Your task to perform on an android device: Open the calendar app, open the side menu, and click the "Day" option Image 0: 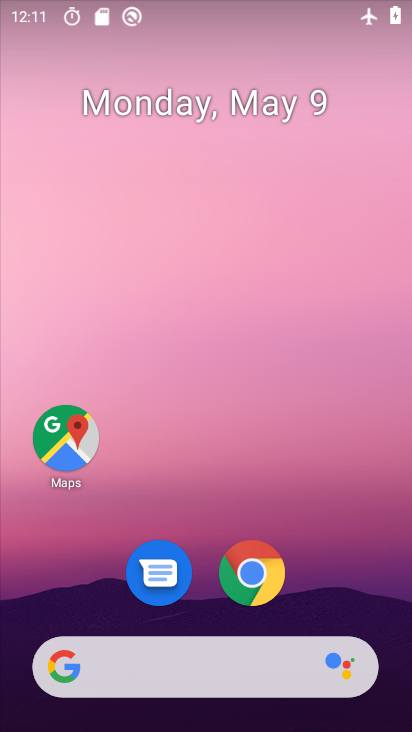
Step 0: drag from (266, 631) to (309, 233)
Your task to perform on an android device: Open the calendar app, open the side menu, and click the "Day" option Image 1: 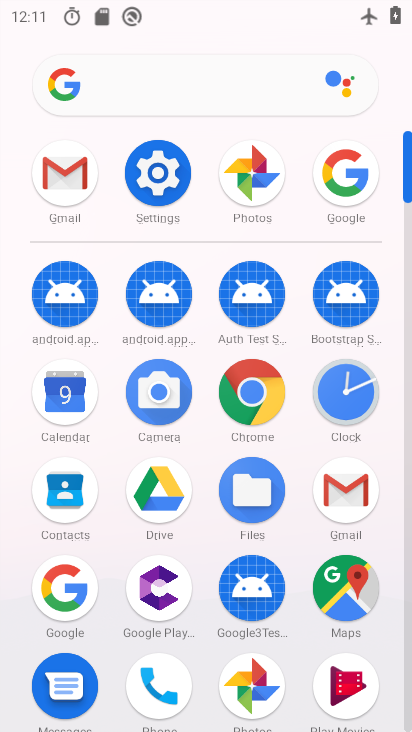
Step 1: click (37, 384)
Your task to perform on an android device: Open the calendar app, open the side menu, and click the "Day" option Image 2: 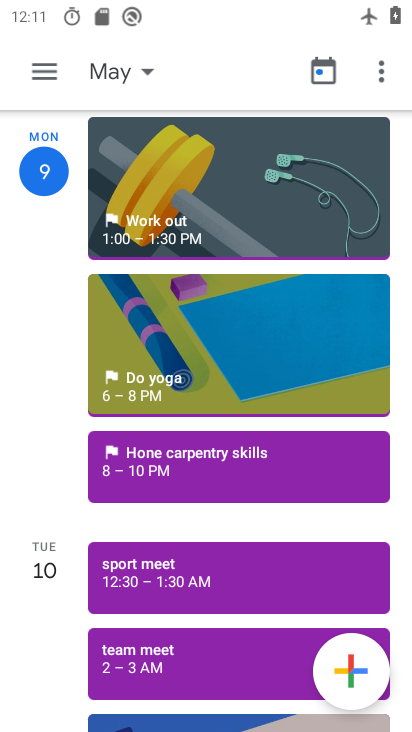
Step 2: click (56, 69)
Your task to perform on an android device: Open the calendar app, open the side menu, and click the "Day" option Image 3: 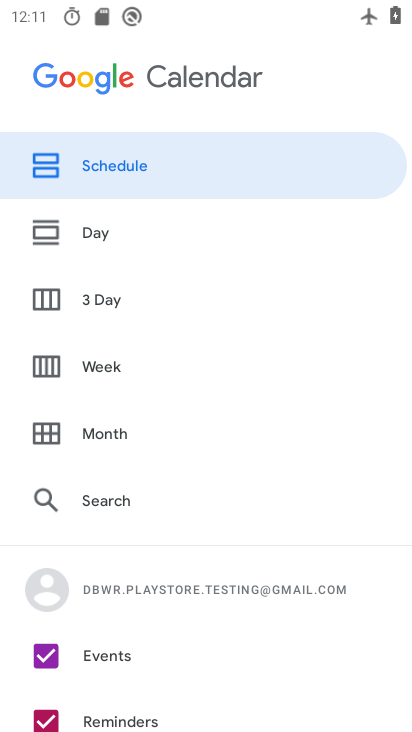
Step 3: click (108, 235)
Your task to perform on an android device: Open the calendar app, open the side menu, and click the "Day" option Image 4: 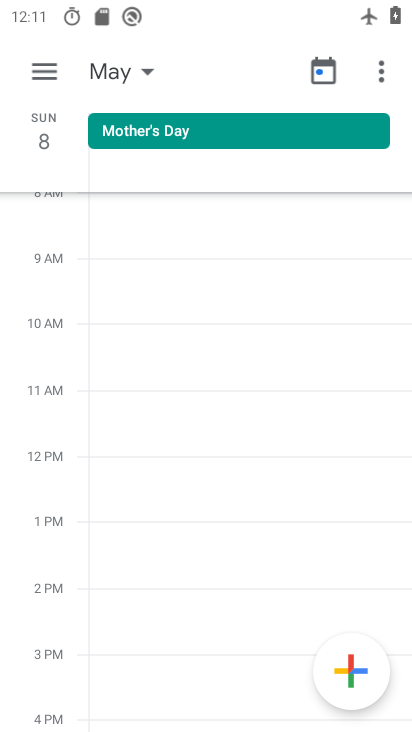
Step 4: task complete